Your task to perform on an android device: Open maps Image 0: 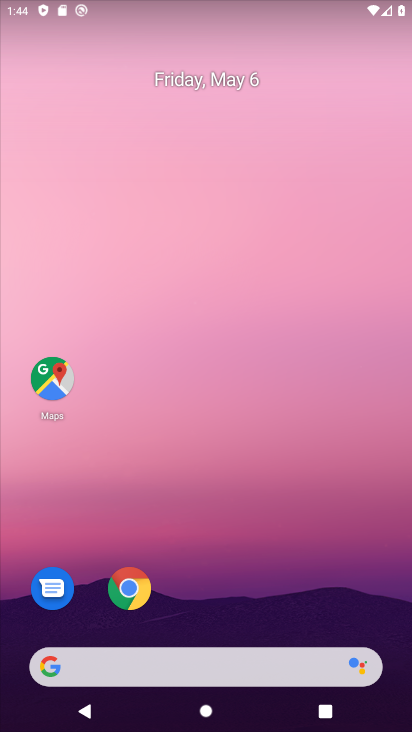
Step 0: click (45, 352)
Your task to perform on an android device: Open maps Image 1: 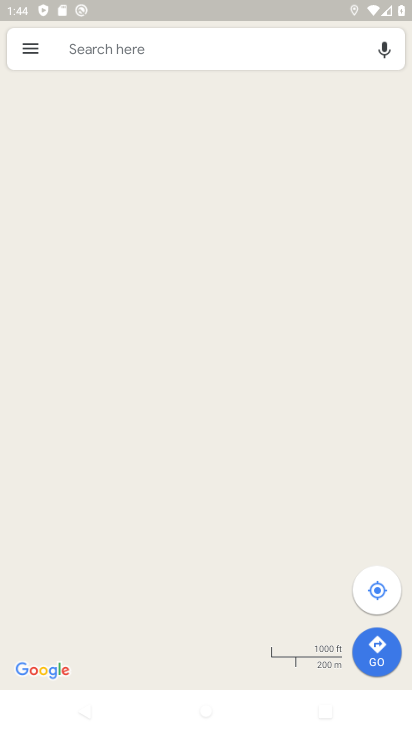
Step 1: task complete